Your task to perform on an android device: change the clock display to analog Image 0: 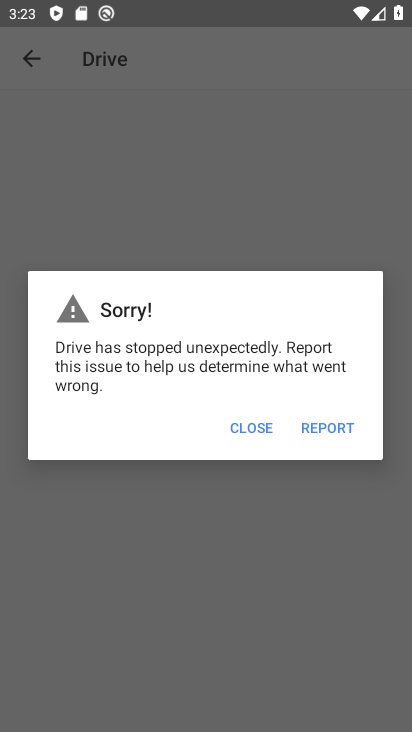
Step 0: press home button
Your task to perform on an android device: change the clock display to analog Image 1: 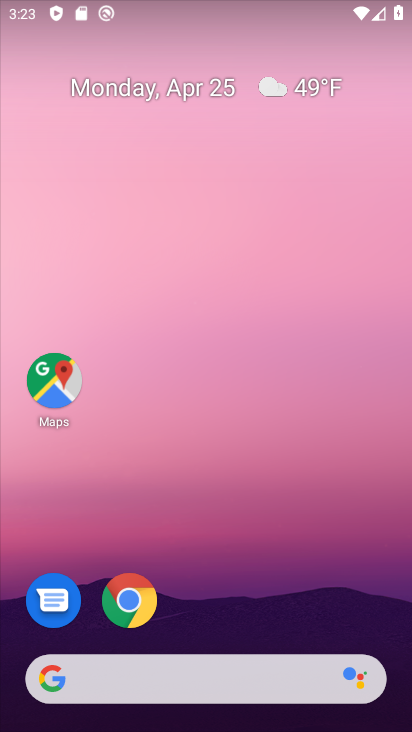
Step 1: drag from (293, 590) to (313, 0)
Your task to perform on an android device: change the clock display to analog Image 2: 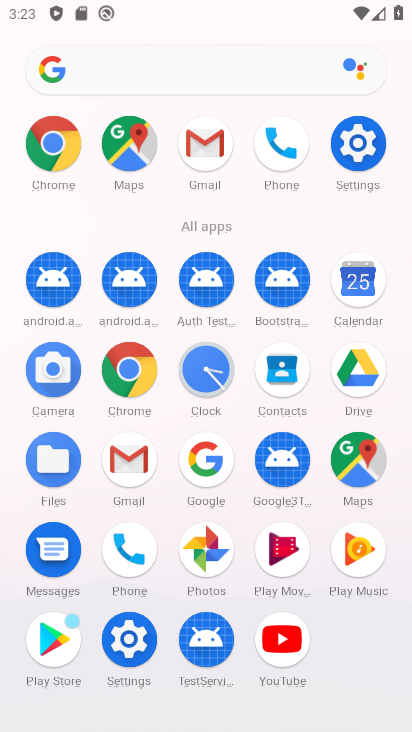
Step 2: click (199, 366)
Your task to perform on an android device: change the clock display to analog Image 3: 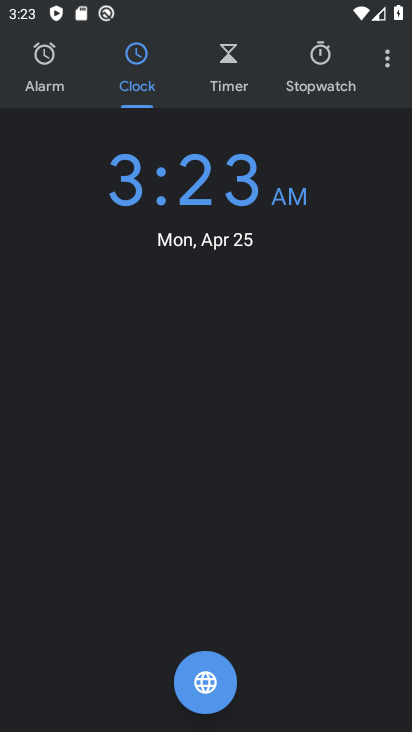
Step 3: click (383, 56)
Your task to perform on an android device: change the clock display to analog Image 4: 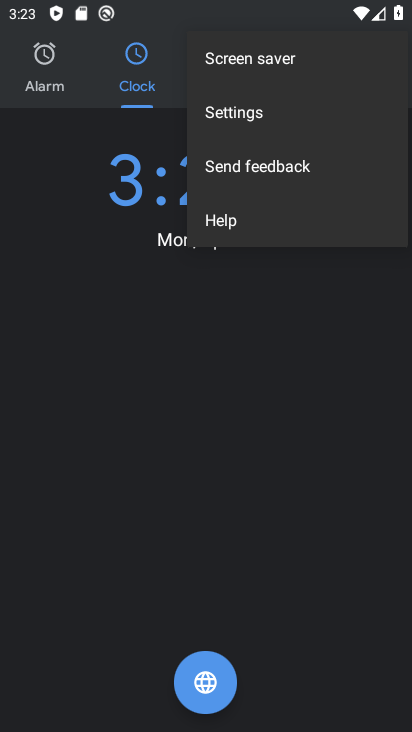
Step 4: click (322, 112)
Your task to perform on an android device: change the clock display to analog Image 5: 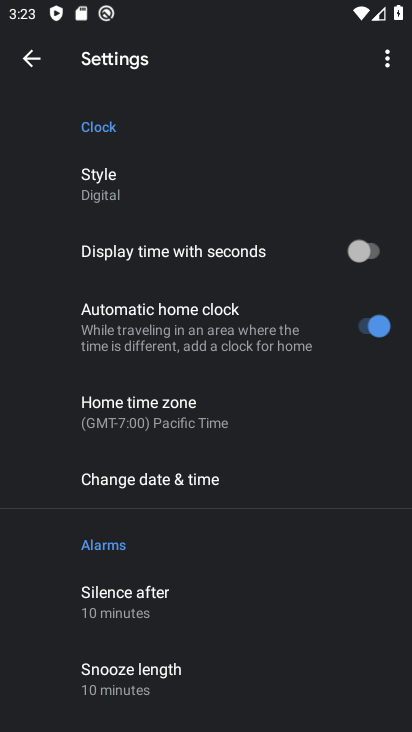
Step 5: click (227, 177)
Your task to perform on an android device: change the clock display to analog Image 6: 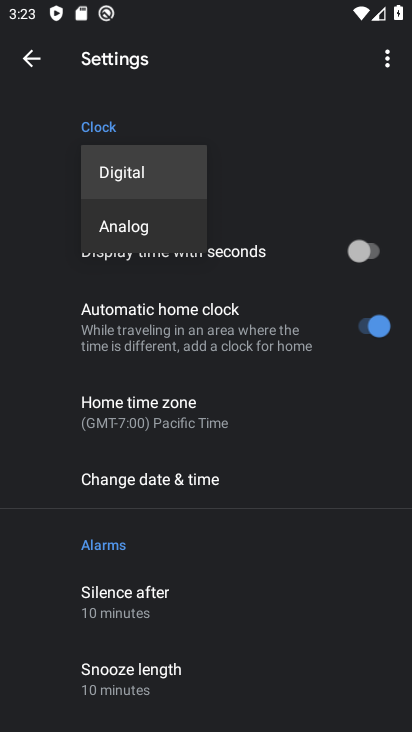
Step 6: click (192, 217)
Your task to perform on an android device: change the clock display to analog Image 7: 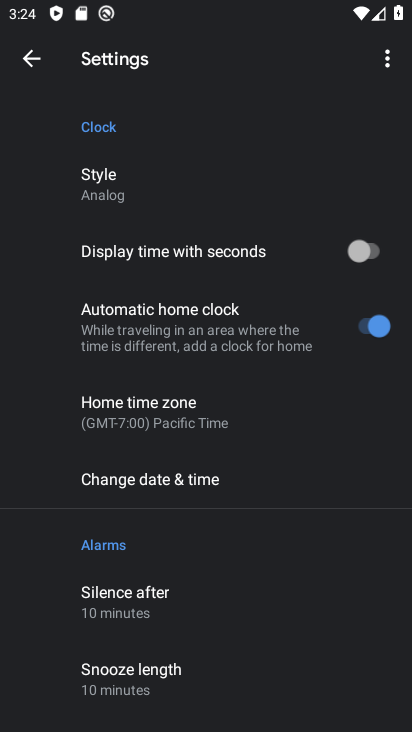
Step 7: click (35, 53)
Your task to perform on an android device: change the clock display to analog Image 8: 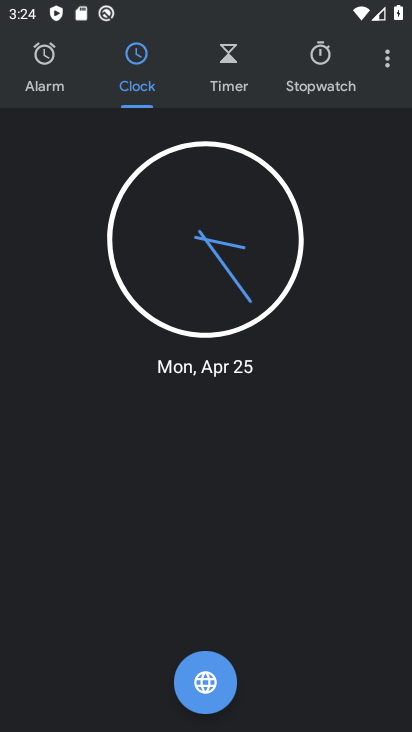
Step 8: task complete